Your task to perform on an android device: Search for a new lawnmower on home depot Image 0: 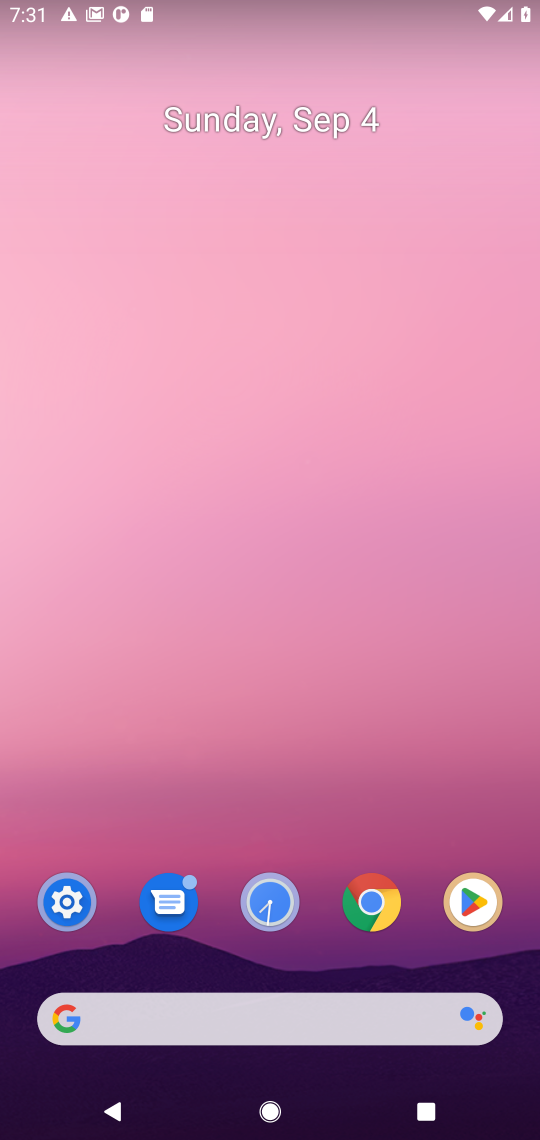
Step 0: click (465, 925)
Your task to perform on an android device: Search for a new lawnmower on home depot Image 1: 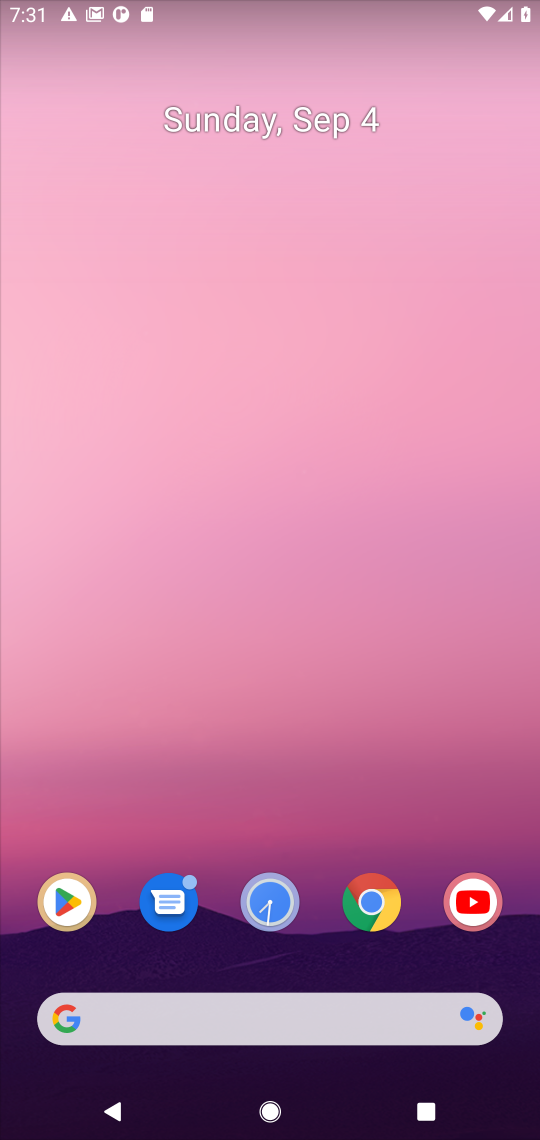
Step 1: click (465, 925)
Your task to perform on an android device: Search for a new lawnmower on home depot Image 2: 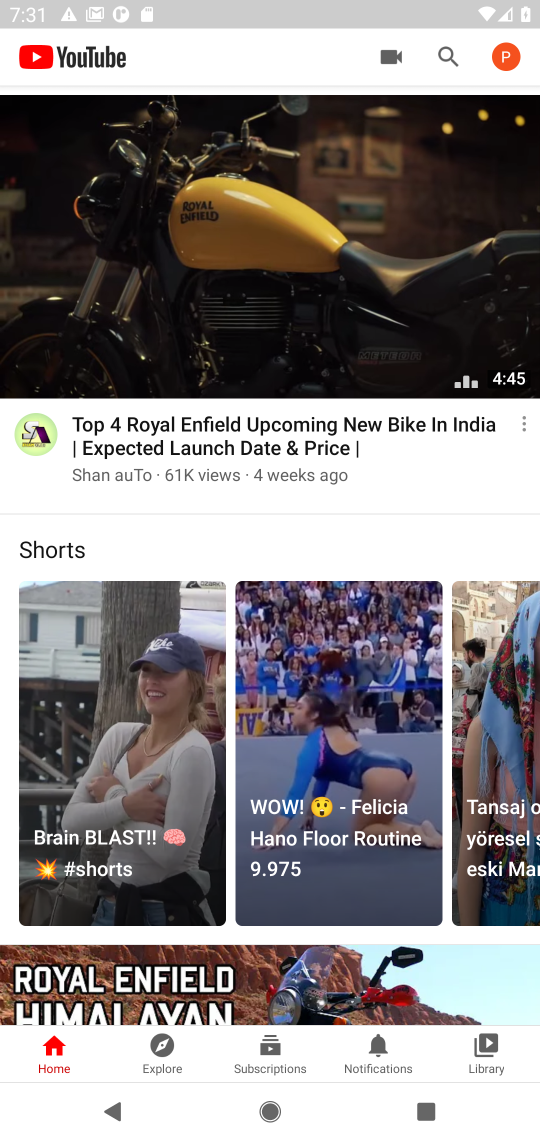
Step 2: click (204, 305)
Your task to perform on an android device: Search for a new lawnmower on home depot Image 3: 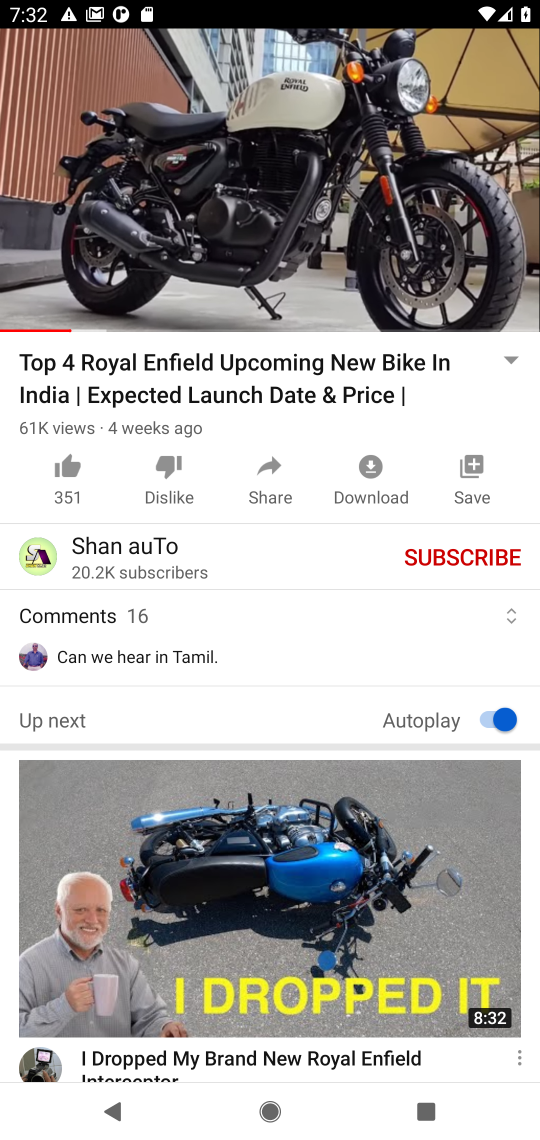
Step 3: task complete